Your task to perform on an android device: Is it going to rain this weekend? Image 0: 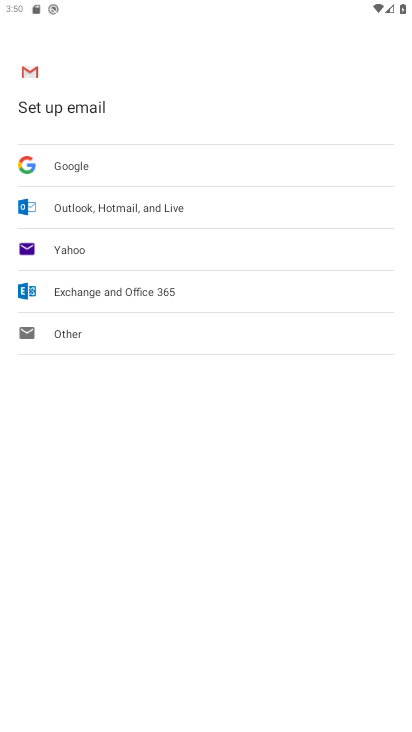
Step 0: press home button
Your task to perform on an android device: Is it going to rain this weekend? Image 1: 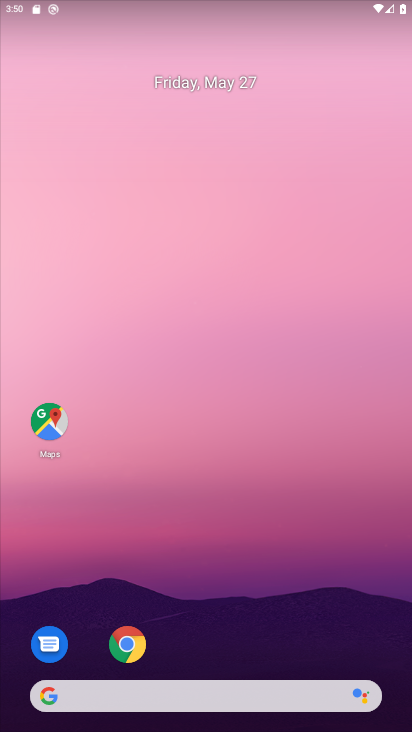
Step 1: drag from (267, 574) to (153, 32)
Your task to perform on an android device: Is it going to rain this weekend? Image 2: 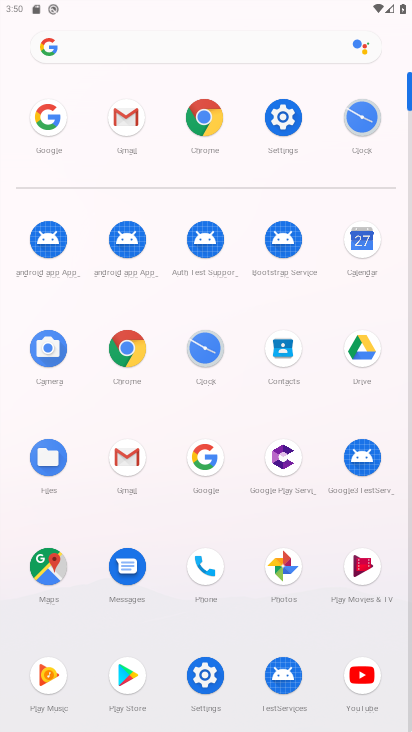
Step 2: click (200, 454)
Your task to perform on an android device: Is it going to rain this weekend? Image 3: 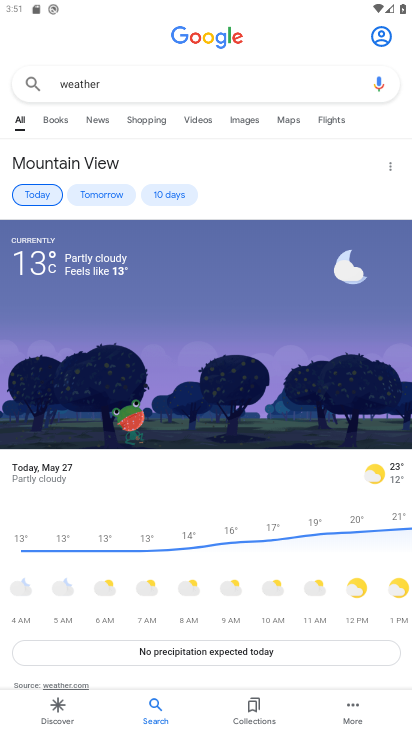
Step 3: click (172, 194)
Your task to perform on an android device: Is it going to rain this weekend? Image 4: 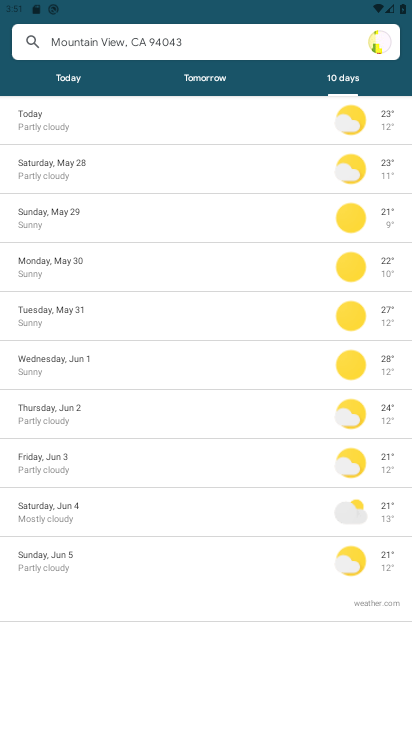
Step 4: task complete